Your task to perform on an android device: Search for alienware area 51 on bestbuy.com, select the first entry, and add it to the cart. Image 0: 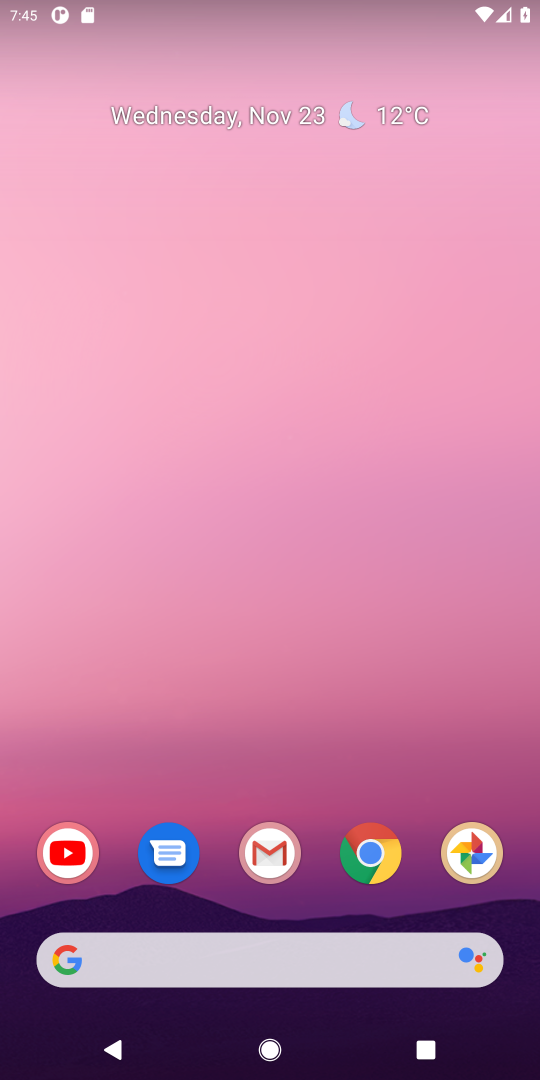
Step 0: click (378, 861)
Your task to perform on an android device: Search for alienware area 51 on bestbuy.com, select the first entry, and add it to the cart. Image 1: 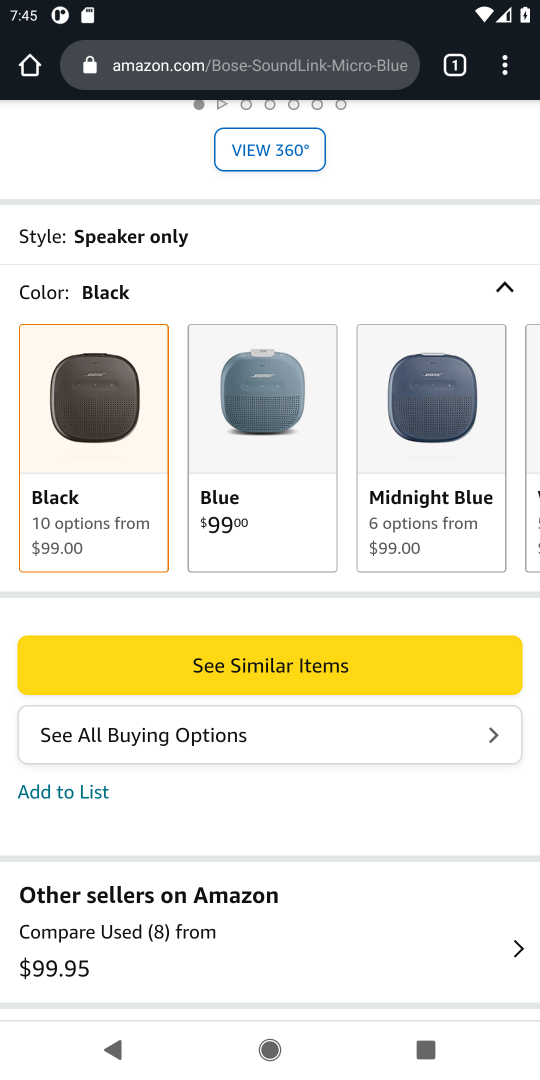
Step 1: click (203, 69)
Your task to perform on an android device: Search for alienware area 51 on bestbuy.com, select the first entry, and add it to the cart. Image 2: 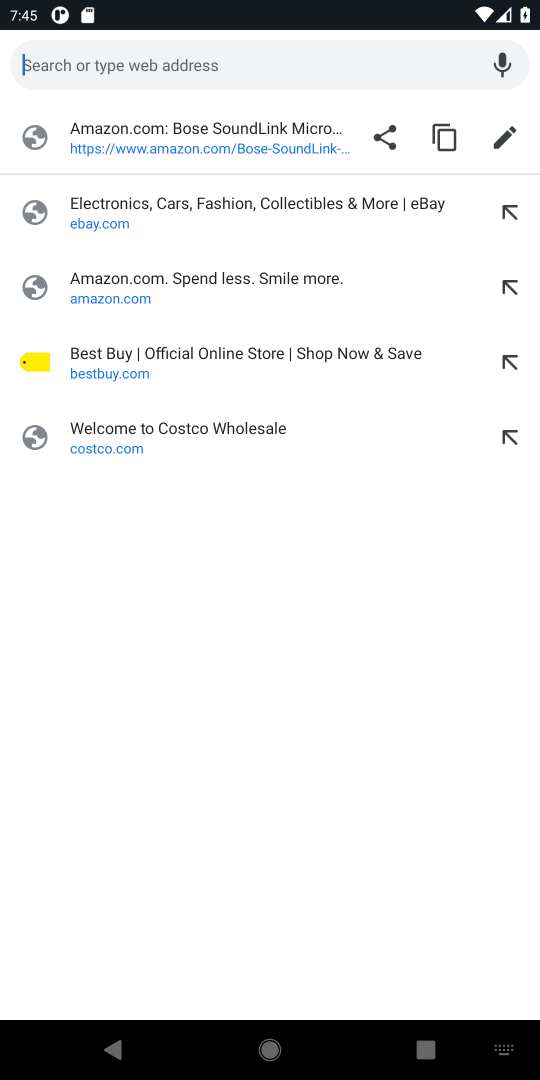
Step 2: click (102, 368)
Your task to perform on an android device: Search for alienware area 51 on bestbuy.com, select the first entry, and add it to the cart. Image 3: 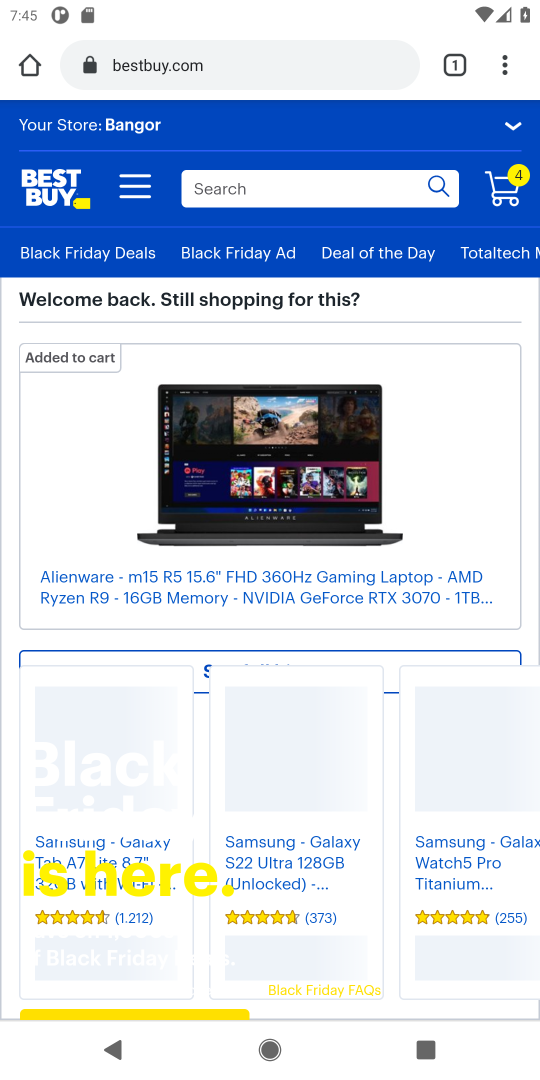
Step 3: click (250, 188)
Your task to perform on an android device: Search for alienware area 51 on bestbuy.com, select the first entry, and add it to the cart. Image 4: 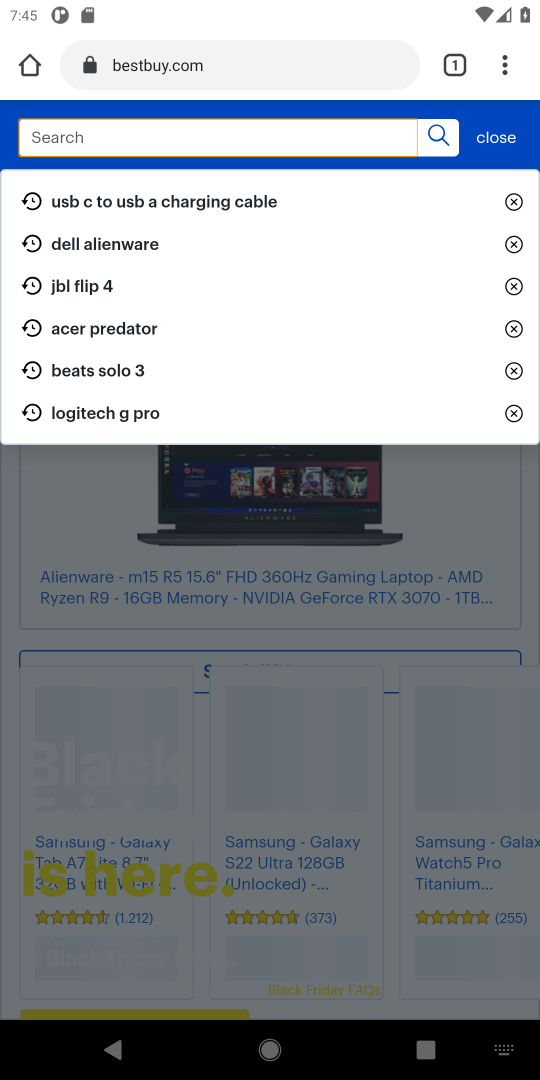
Step 4: type "alienware area 51"
Your task to perform on an android device: Search for alienware area 51 on bestbuy.com, select the first entry, and add it to the cart. Image 5: 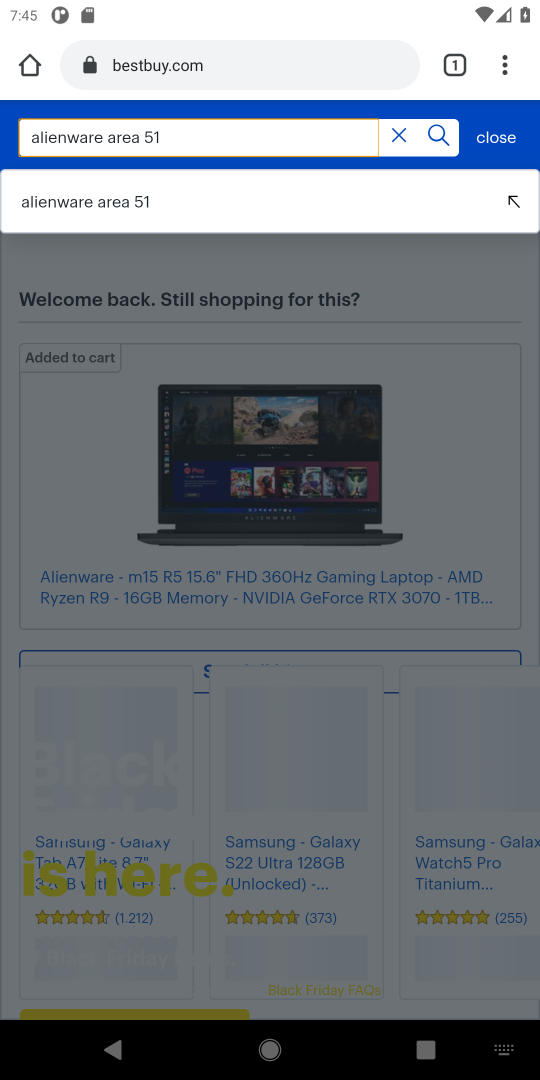
Step 5: click (116, 193)
Your task to perform on an android device: Search for alienware area 51 on bestbuy.com, select the first entry, and add it to the cart. Image 6: 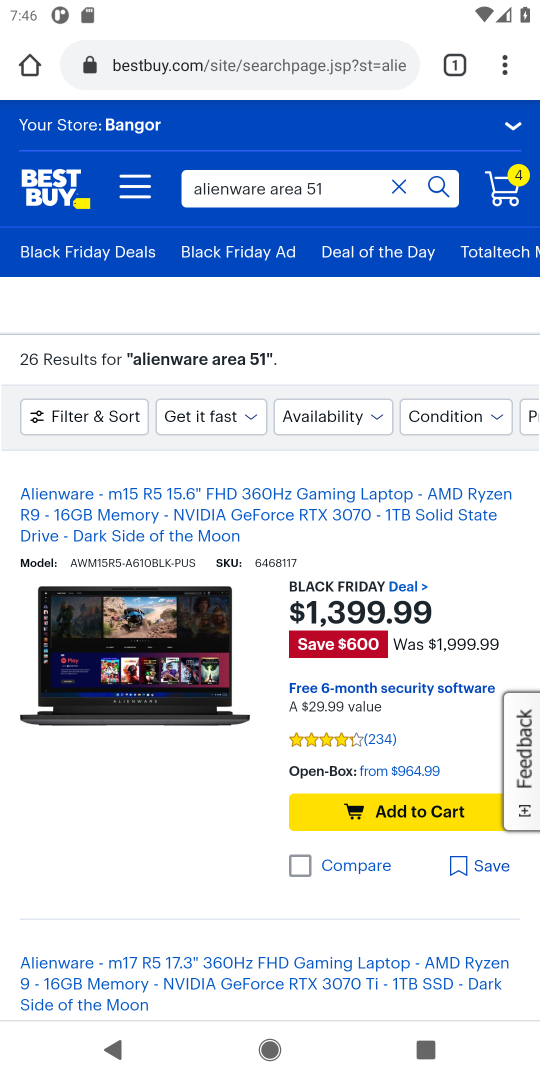
Step 6: task complete